Your task to perform on an android device: empty trash in the gmail app Image 0: 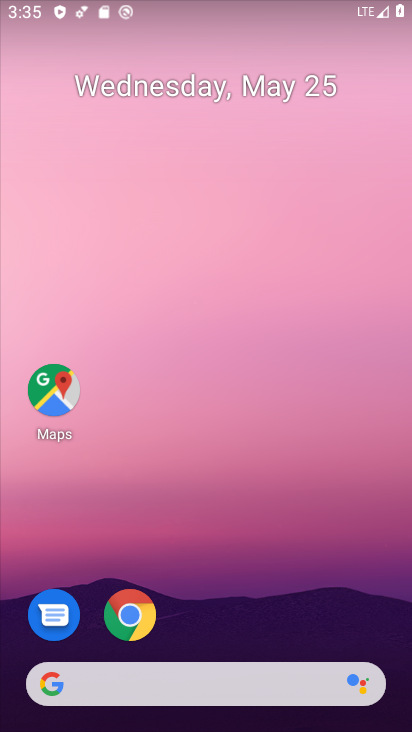
Step 0: drag from (269, 318) to (250, 52)
Your task to perform on an android device: empty trash in the gmail app Image 1: 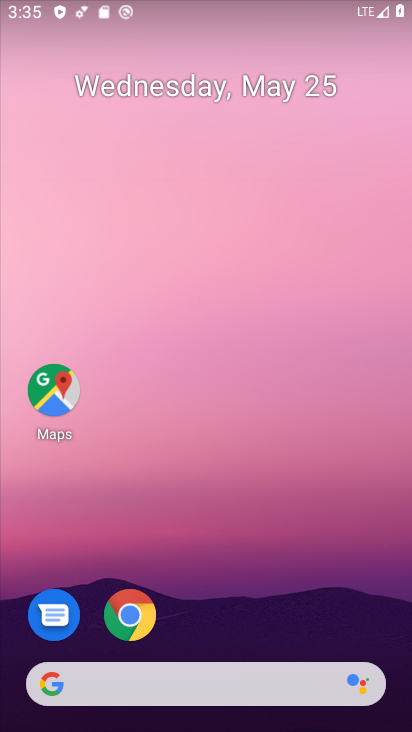
Step 1: drag from (274, 561) to (244, 0)
Your task to perform on an android device: empty trash in the gmail app Image 2: 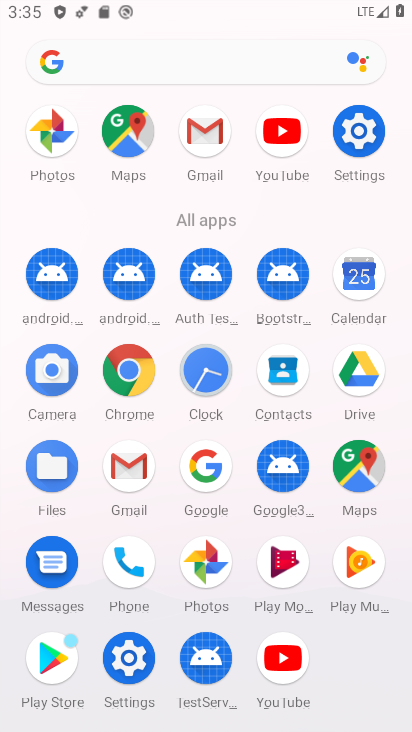
Step 2: click (142, 462)
Your task to perform on an android device: empty trash in the gmail app Image 3: 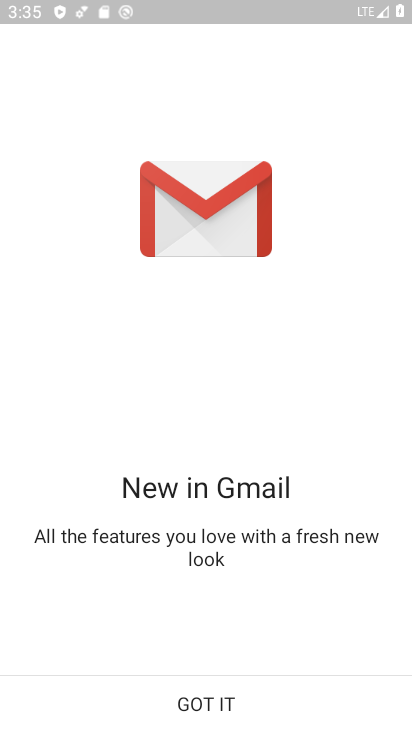
Step 3: click (214, 699)
Your task to perform on an android device: empty trash in the gmail app Image 4: 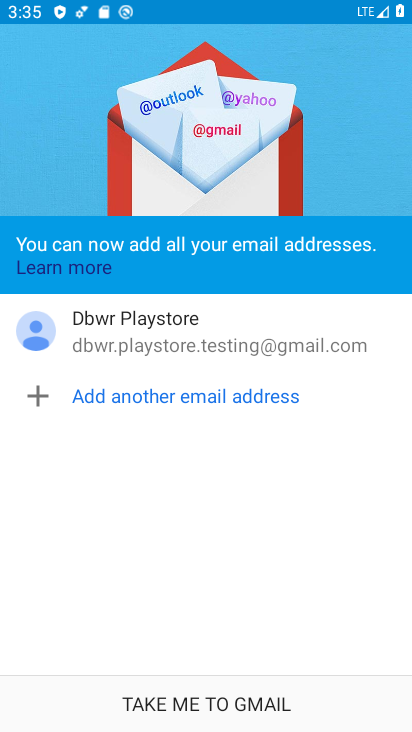
Step 4: click (229, 692)
Your task to perform on an android device: empty trash in the gmail app Image 5: 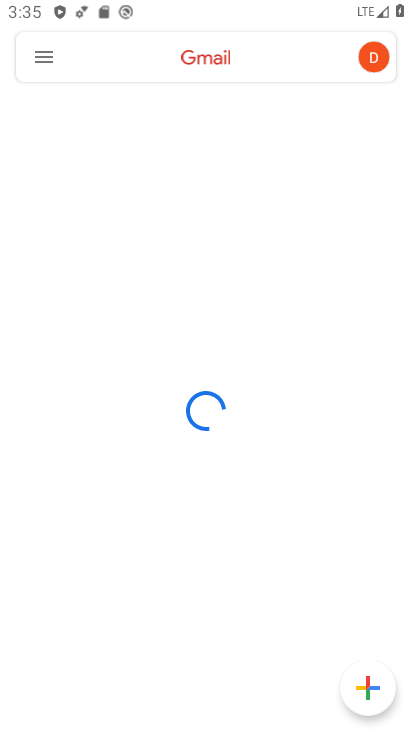
Step 5: click (46, 44)
Your task to perform on an android device: empty trash in the gmail app Image 6: 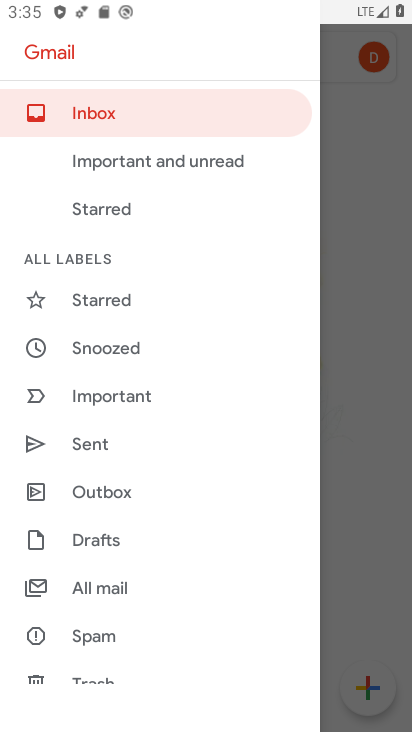
Step 6: drag from (153, 656) to (182, 261)
Your task to perform on an android device: empty trash in the gmail app Image 7: 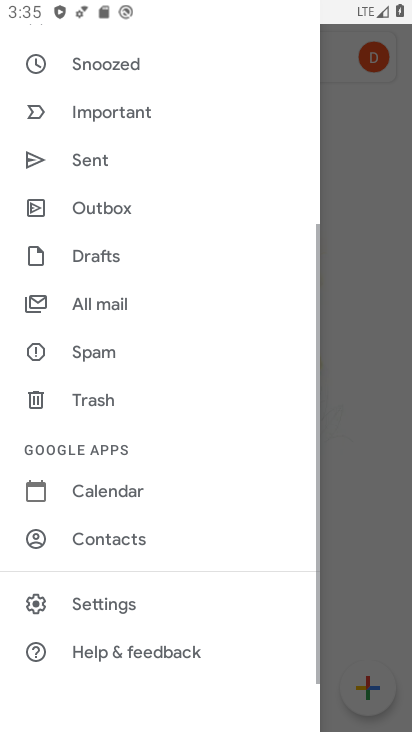
Step 7: click (145, 392)
Your task to perform on an android device: empty trash in the gmail app Image 8: 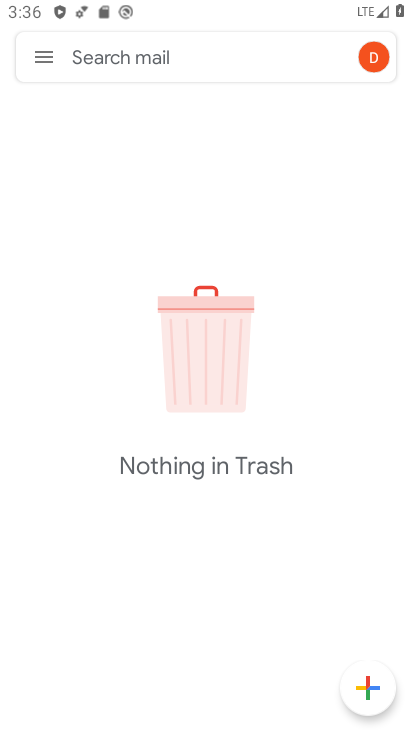
Step 8: task complete